Your task to perform on an android device: change the upload size in google photos Image 0: 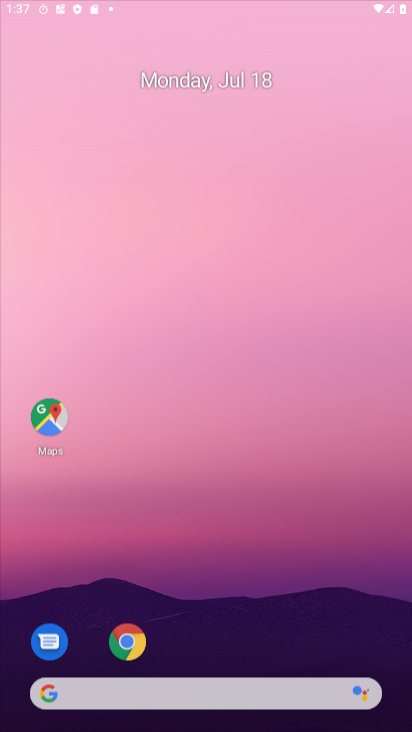
Step 0: press home button
Your task to perform on an android device: change the upload size in google photos Image 1: 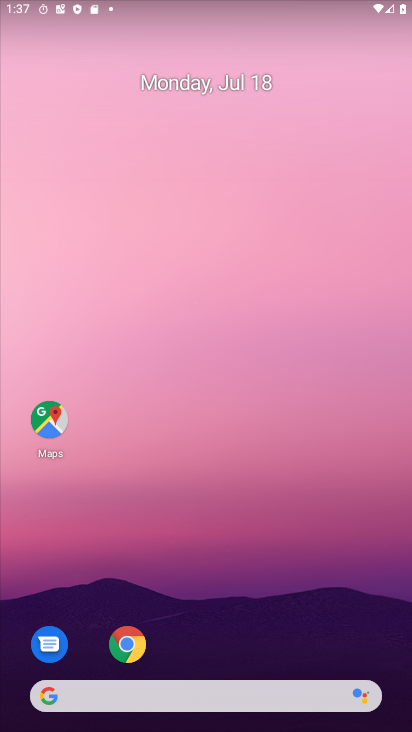
Step 1: drag from (241, 620) to (215, 131)
Your task to perform on an android device: change the upload size in google photos Image 2: 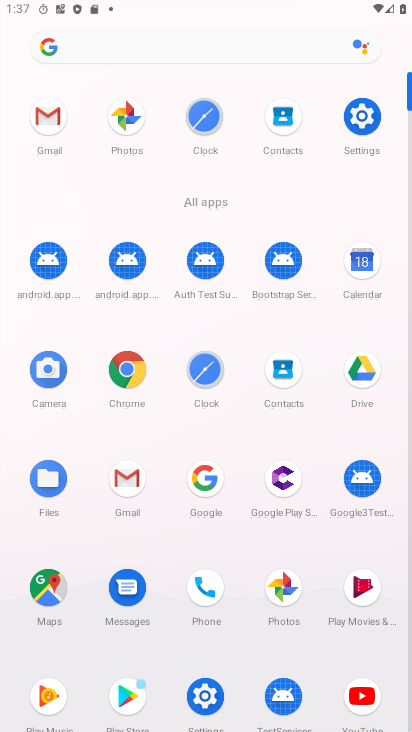
Step 2: click (129, 115)
Your task to perform on an android device: change the upload size in google photos Image 3: 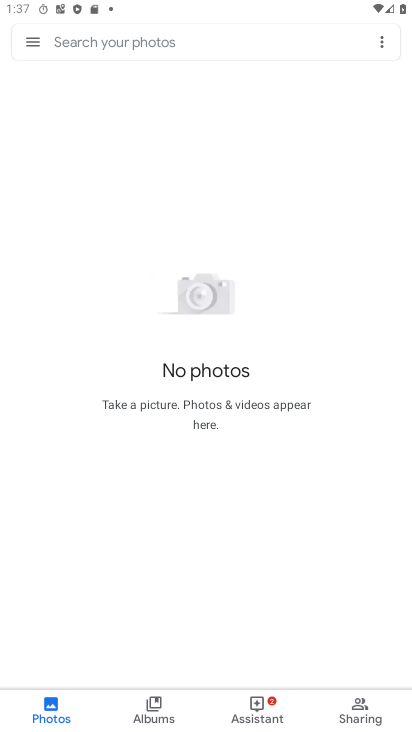
Step 3: click (28, 32)
Your task to perform on an android device: change the upload size in google photos Image 4: 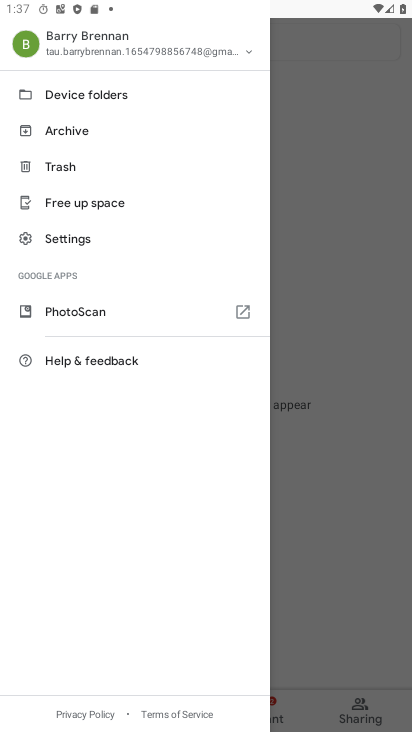
Step 4: click (47, 241)
Your task to perform on an android device: change the upload size in google photos Image 5: 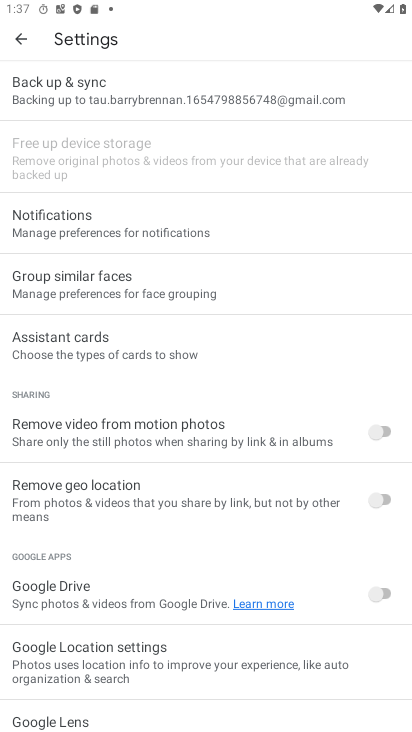
Step 5: click (195, 106)
Your task to perform on an android device: change the upload size in google photos Image 6: 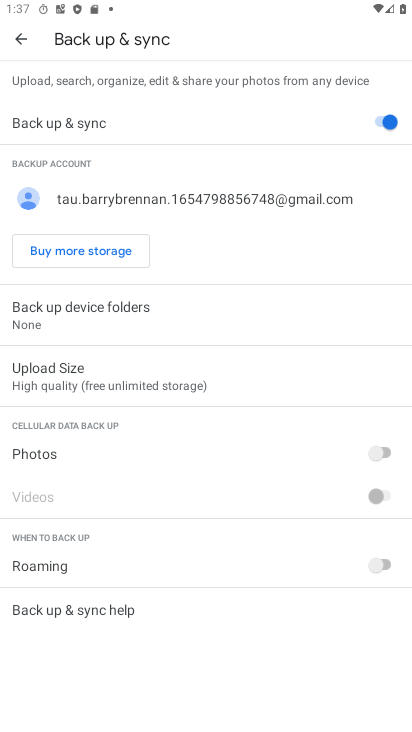
Step 6: click (91, 398)
Your task to perform on an android device: change the upload size in google photos Image 7: 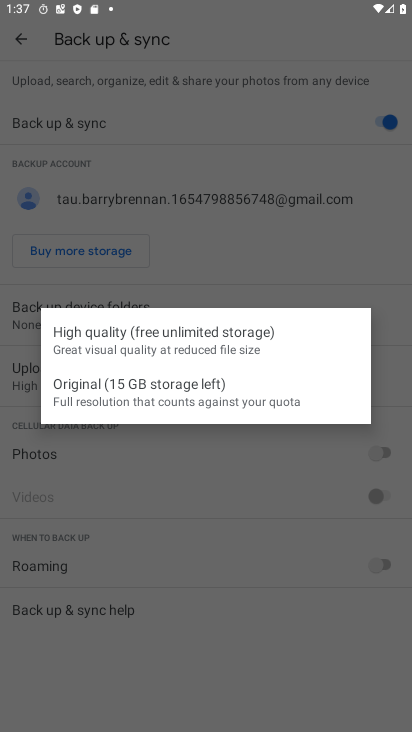
Step 7: click (113, 385)
Your task to perform on an android device: change the upload size in google photos Image 8: 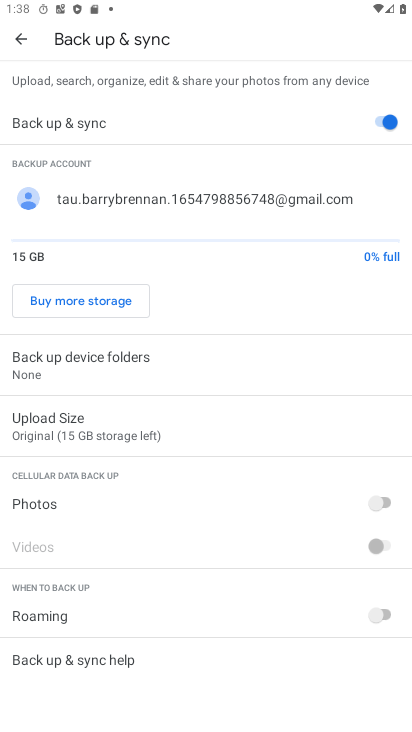
Step 8: task complete